Your task to perform on an android device: see tabs open on other devices in the chrome app Image 0: 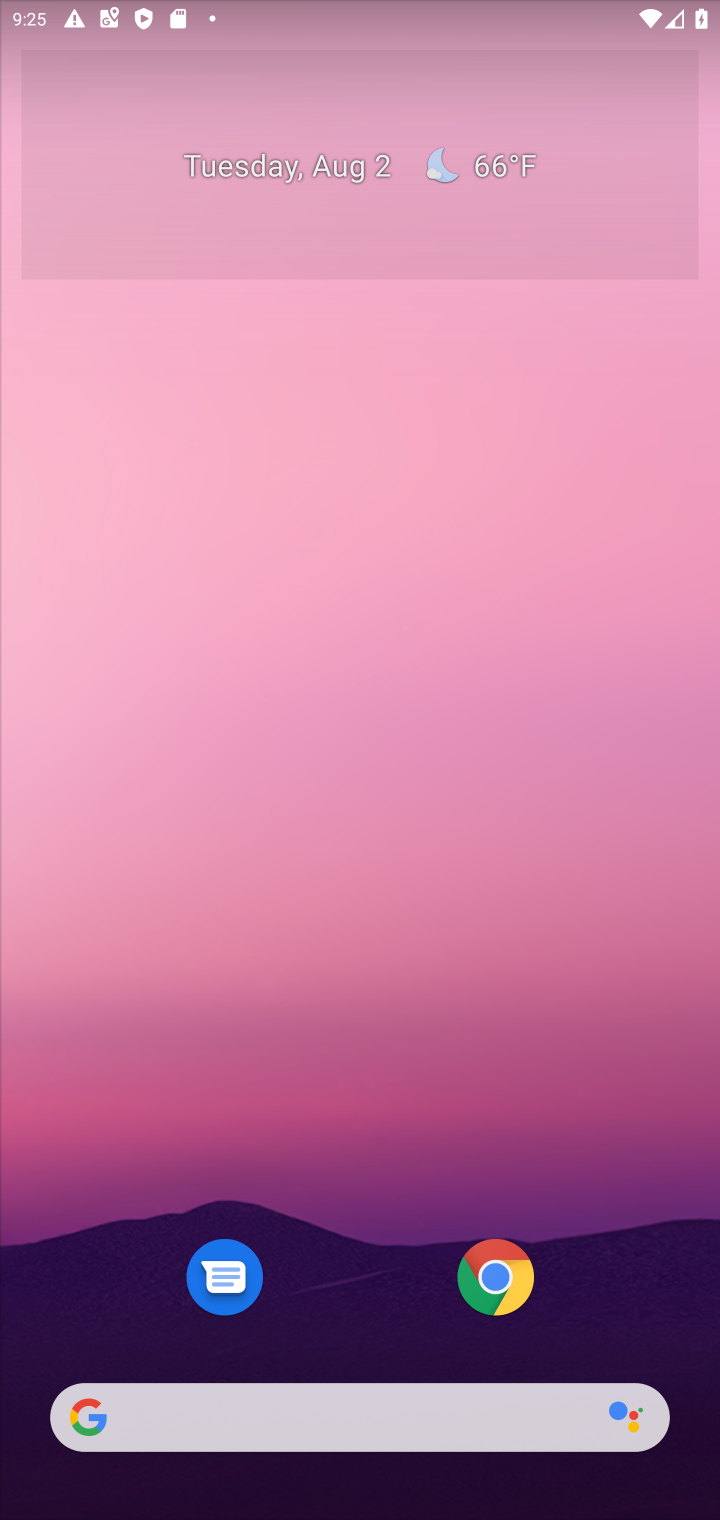
Step 0: click (482, 1294)
Your task to perform on an android device: see tabs open on other devices in the chrome app Image 1: 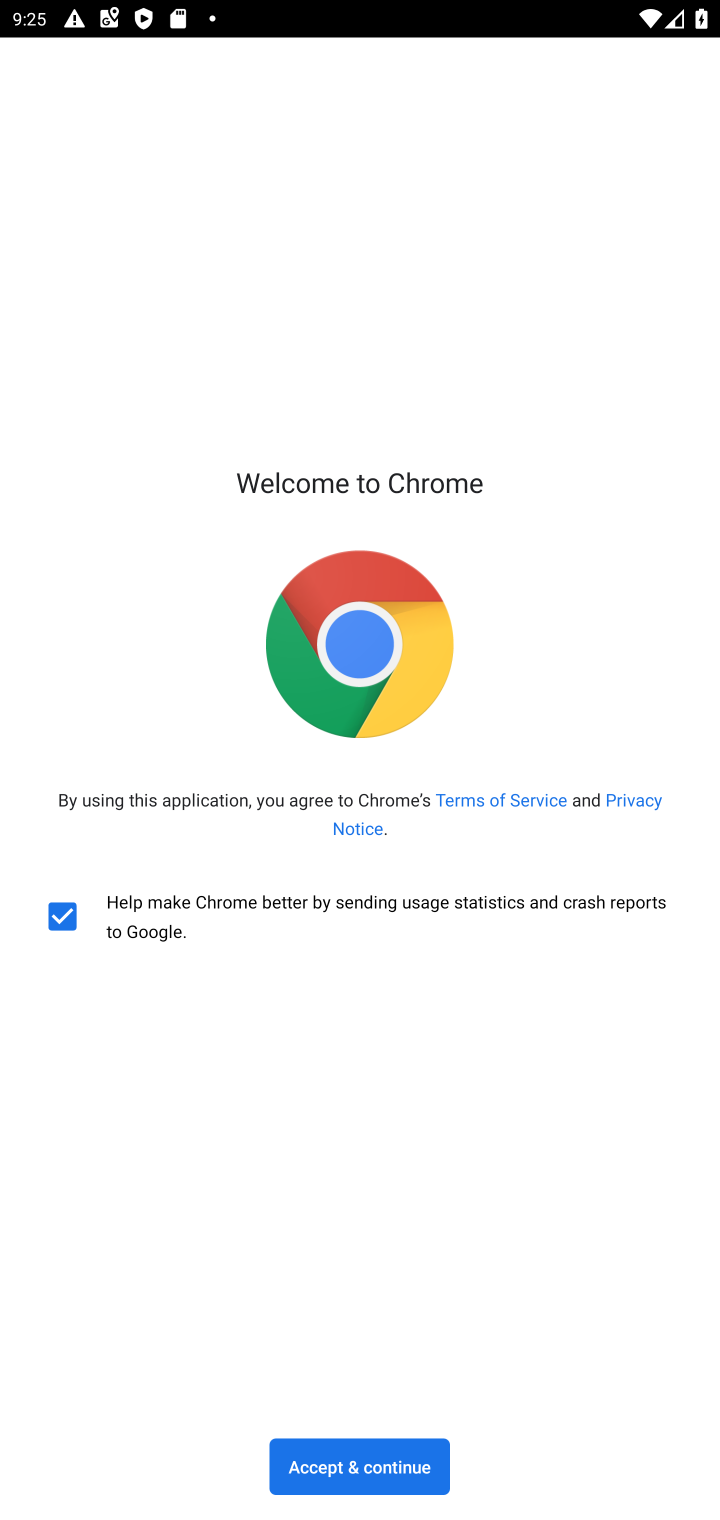
Step 1: click (331, 1465)
Your task to perform on an android device: see tabs open on other devices in the chrome app Image 2: 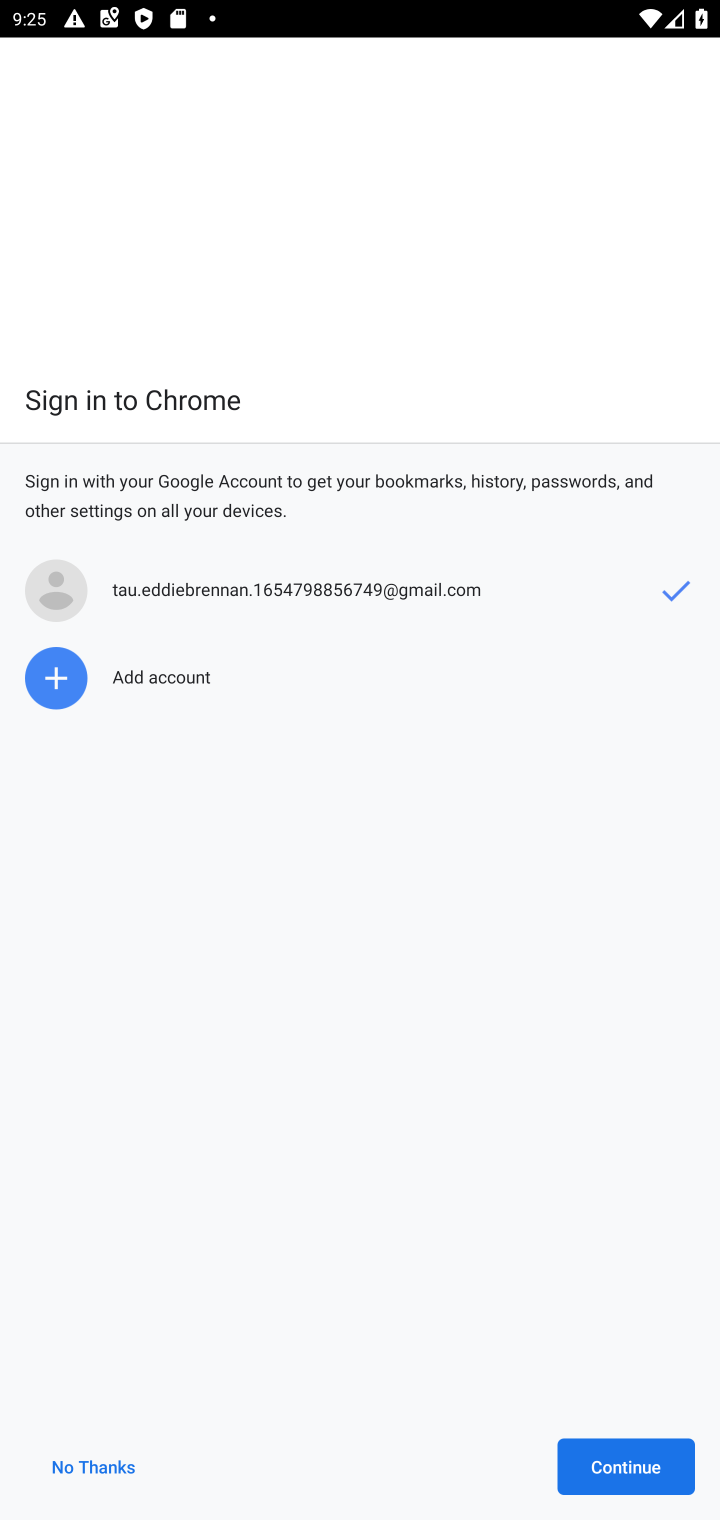
Step 2: click (617, 1478)
Your task to perform on an android device: see tabs open on other devices in the chrome app Image 3: 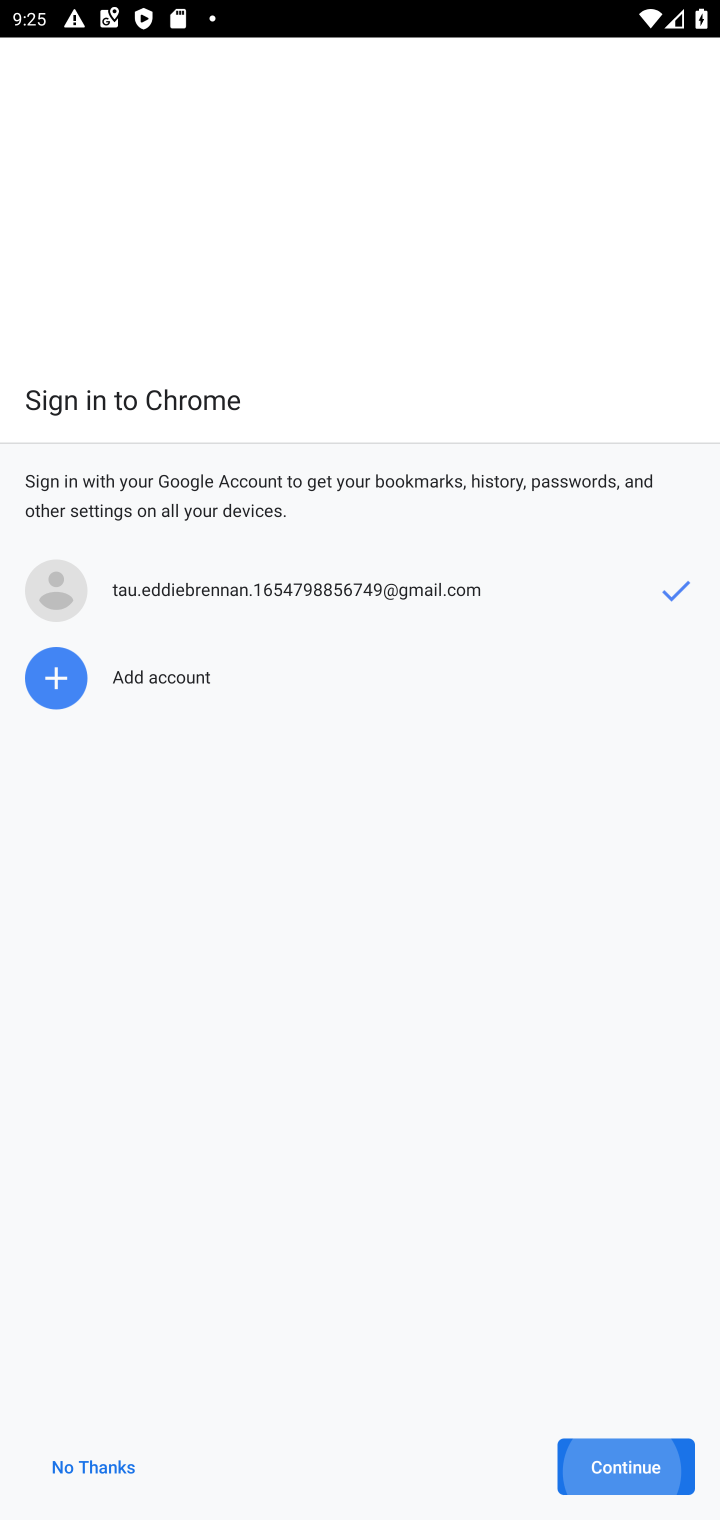
Step 3: click (617, 1478)
Your task to perform on an android device: see tabs open on other devices in the chrome app Image 4: 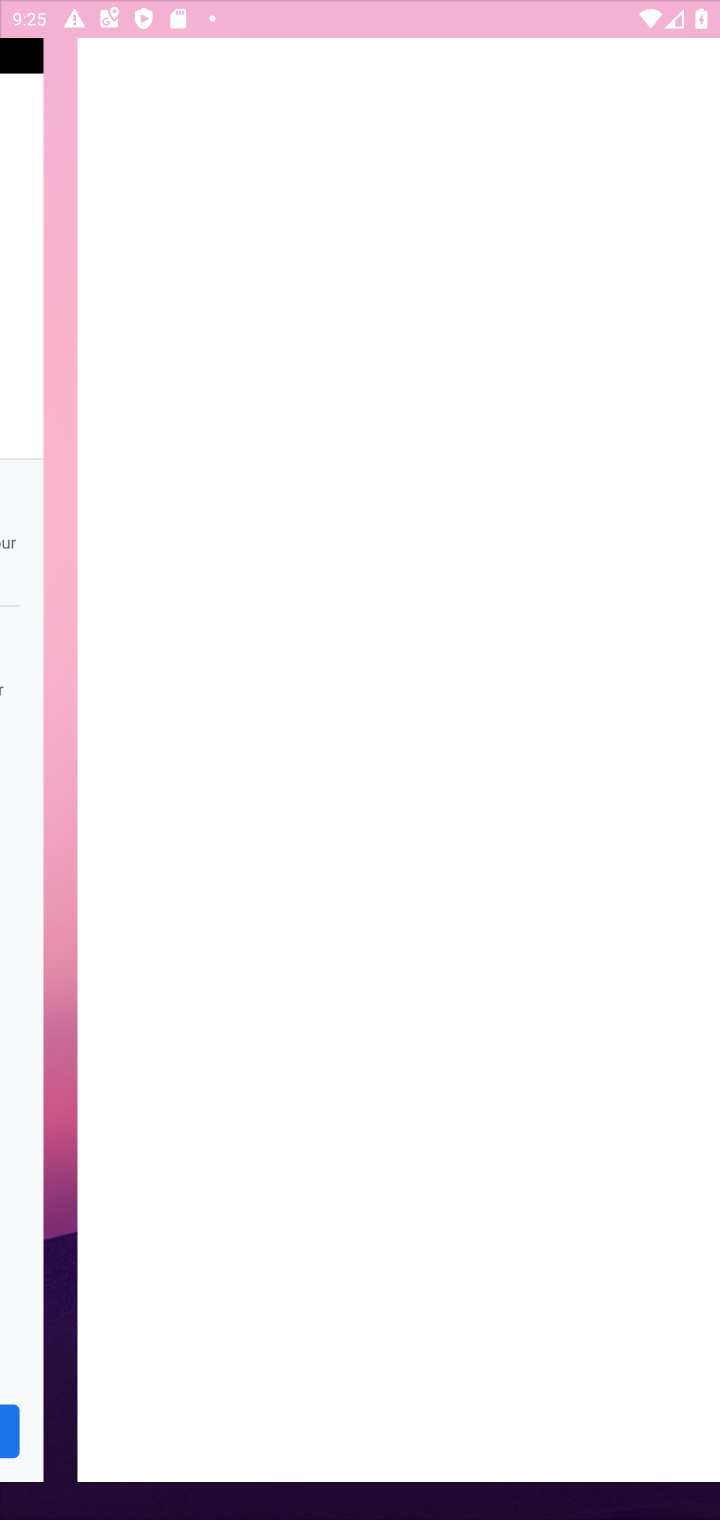
Step 4: click (617, 1478)
Your task to perform on an android device: see tabs open on other devices in the chrome app Image 5: 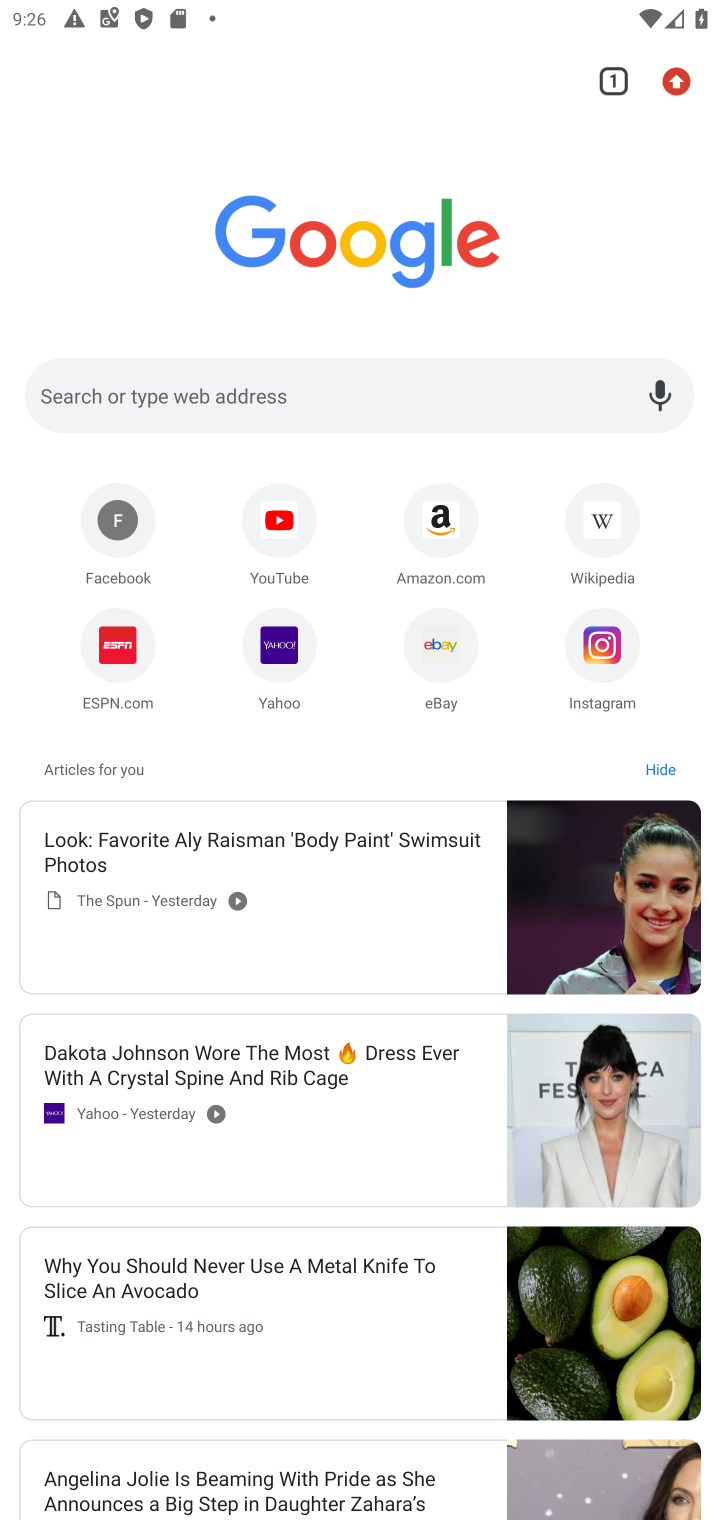
Step 5: click (617, 81)
Your task to perform on an android device: see tabs open on other devices in the chrome app Image 6: 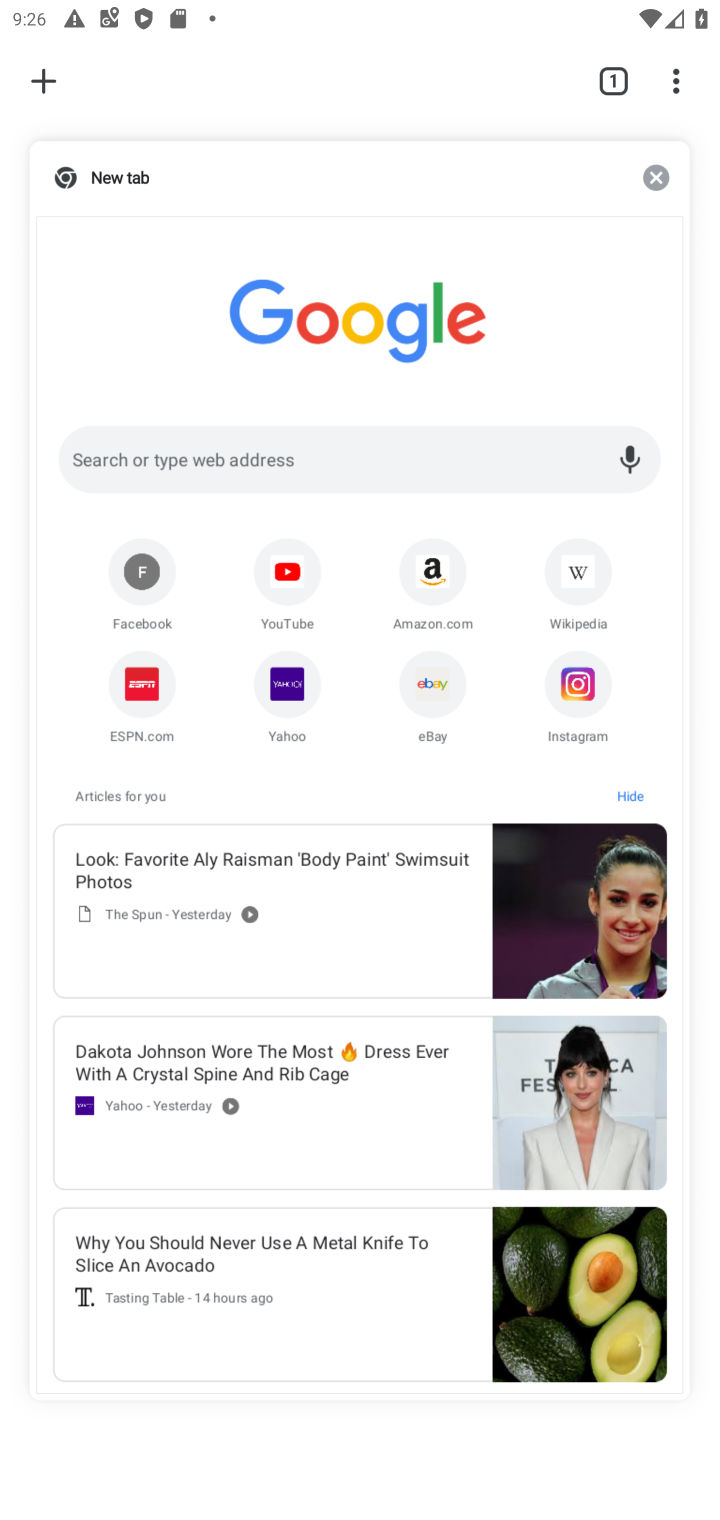
Step 6: task complete